Your task to perform on an android device: refresh tabs in the chrome app Image 0: 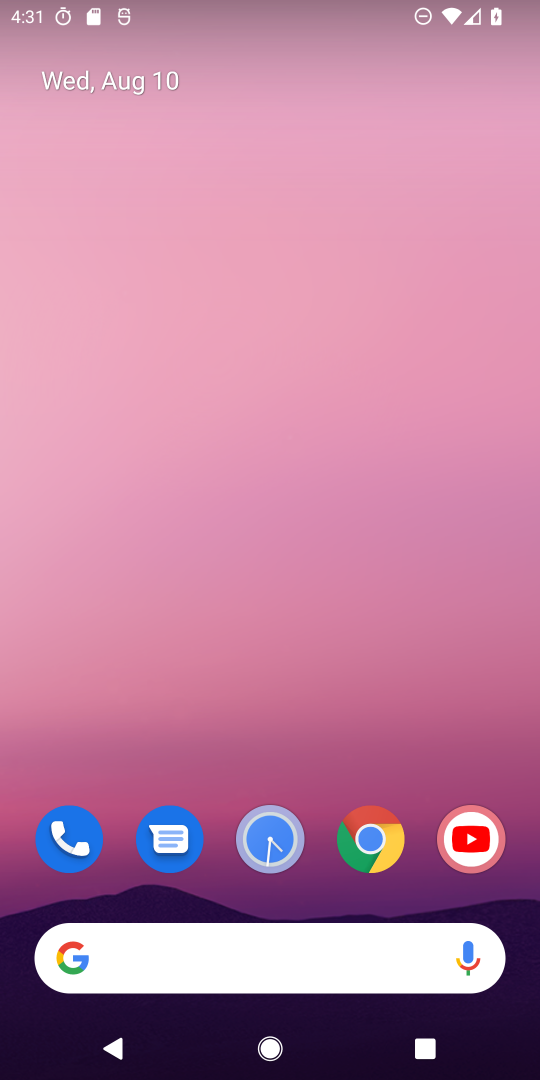
Step 0: click (371, 850)
Your task to perform on an android device: refresh tabs in the chrome app Image 1: 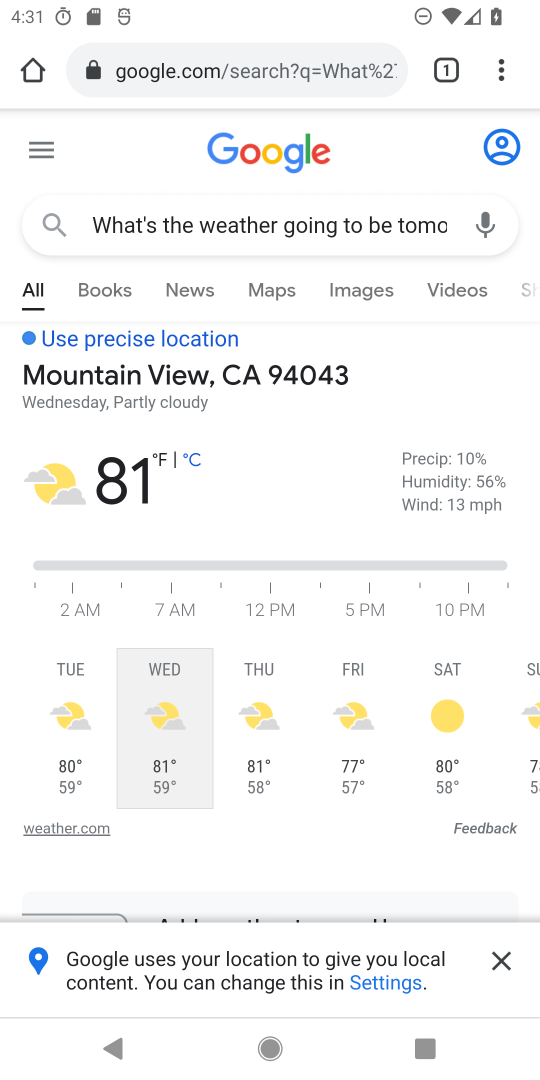
Step 1: click (506, 80)
Your task to perform on an android device: refresh tabs in the chrome app Image 2: 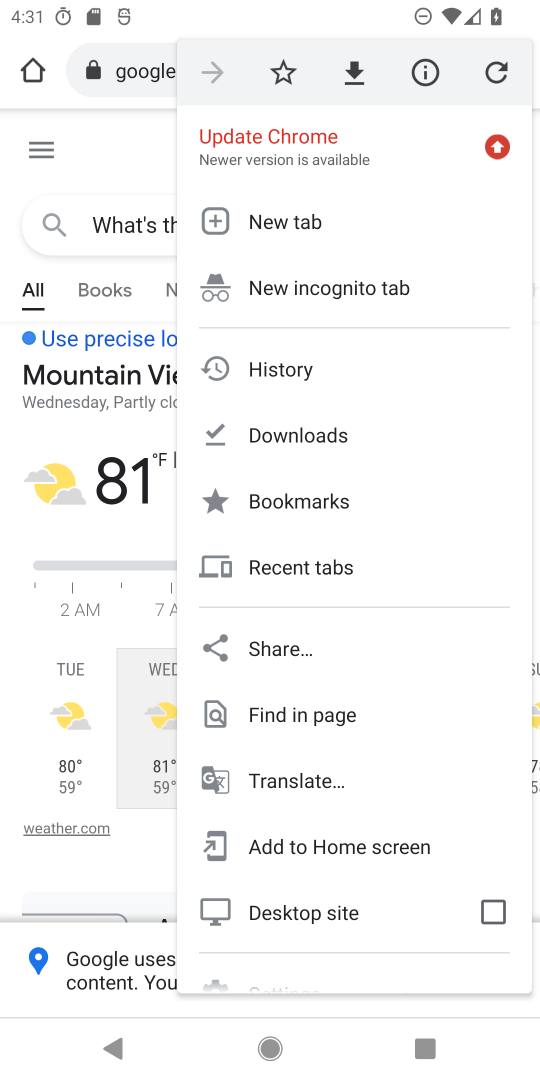
Step 2: click (492, 71)
Your task to perform on an android device: refresh tabs in the chrome app Image 3: 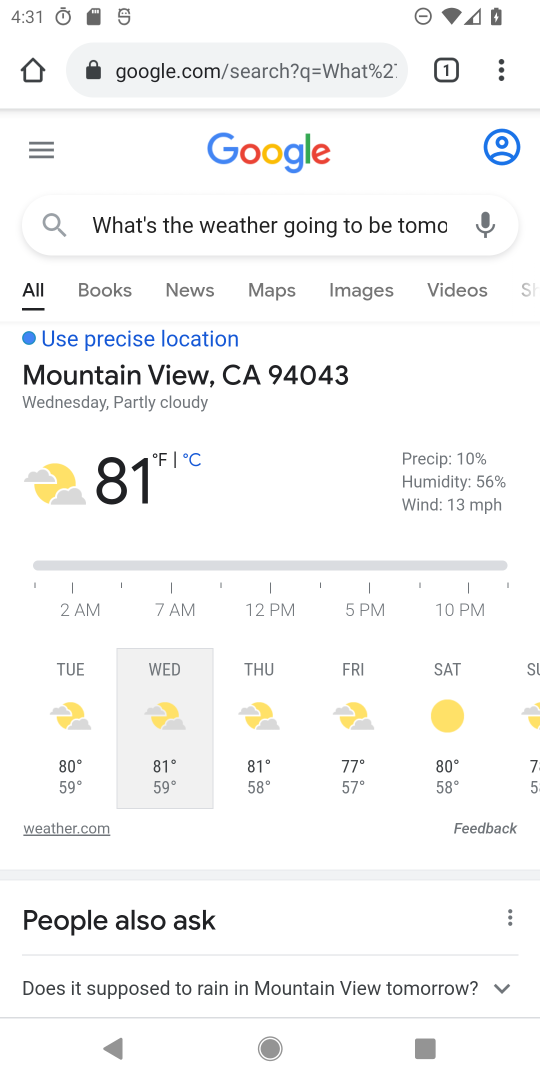
Step 3: task complete